Your task to perform on an android device: turn off picture-in-picture Image 0: 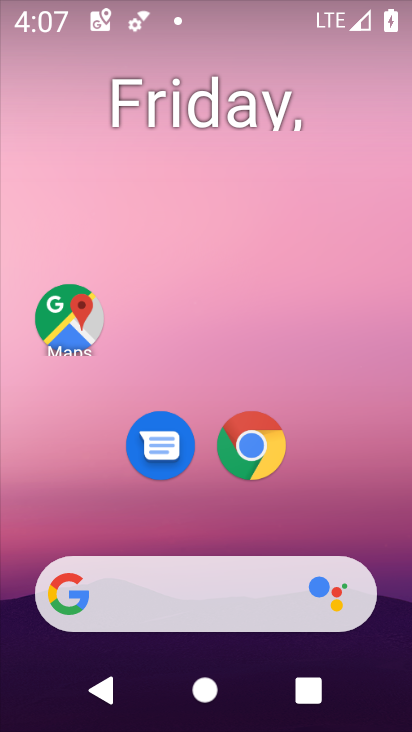
Step 0: click (272, 451)
Your task to perform on an android device: turn off picture-in-picture Image 1: 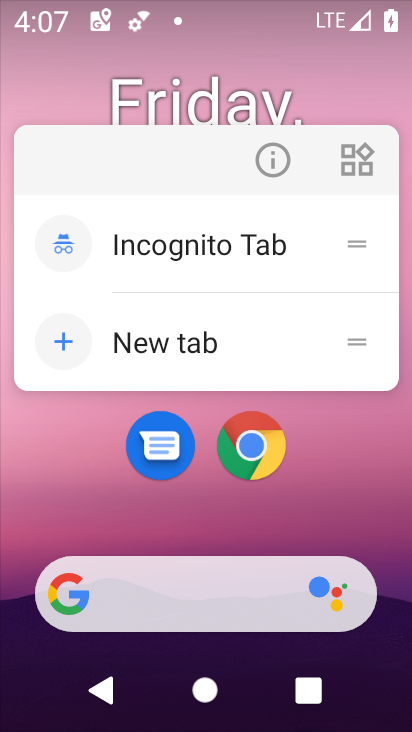
Step 1: click (270, 169)
Your task to perform on an android device: turn off picture-in-picture Image 2: 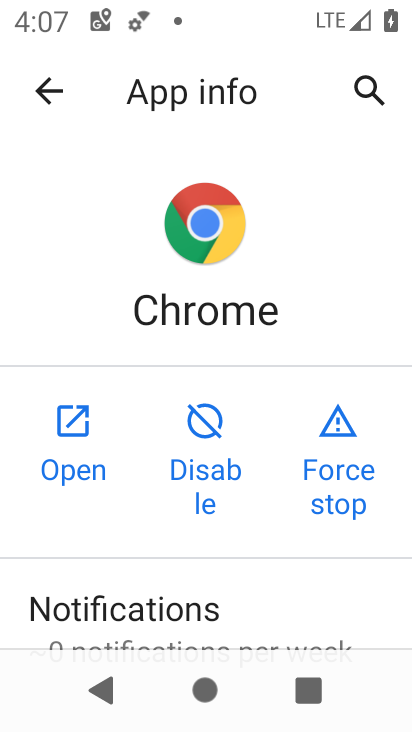
Step 2: drag from (273, 578) to (269, 279)
Your task to perform on an android device: turn off picture-in-picture Image 3: 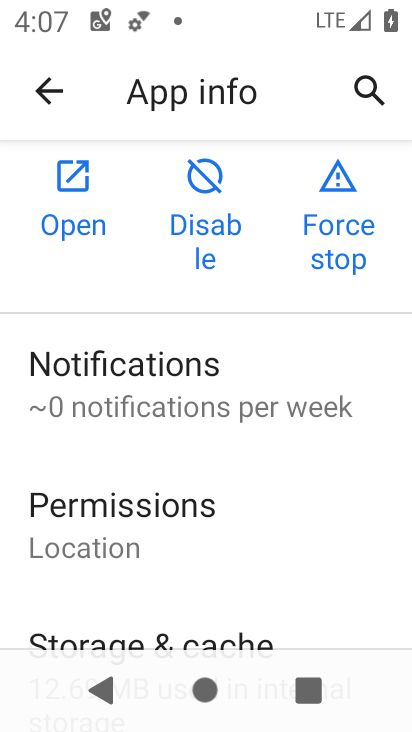
Step 3: drag from (282, 540) to (273, 202)
Your task to perform on an android device: turn off picture-in-picture Image 4: 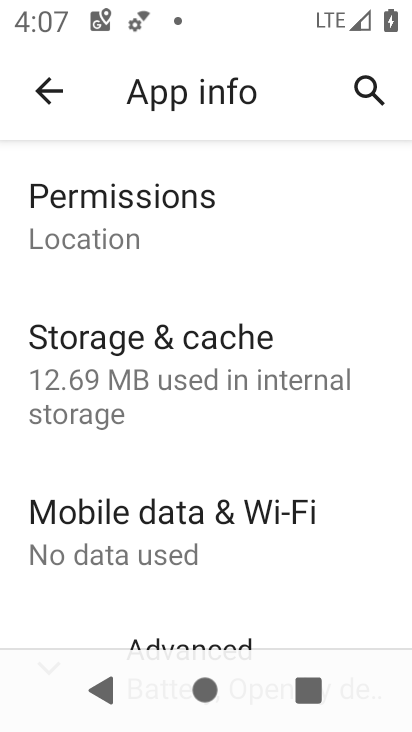
Step 4: drag from (282, 591) to (258, 139)
Your task to perform on an android device: turn off picture-in-picture Image 5: 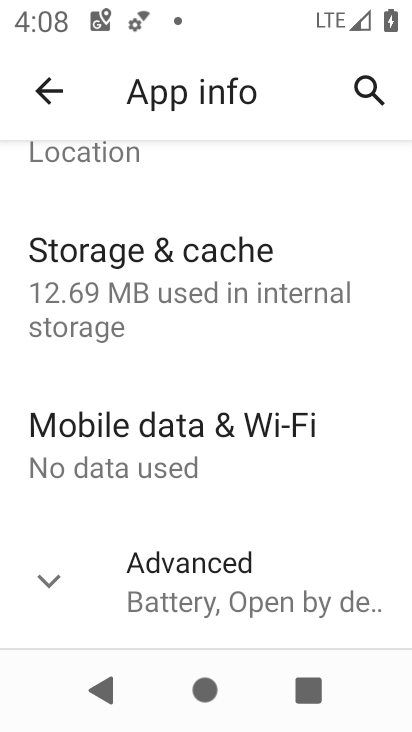
Step 5: click (261, 559)
Your task to perform on an android device: turn off picture-in-picture Image 6: 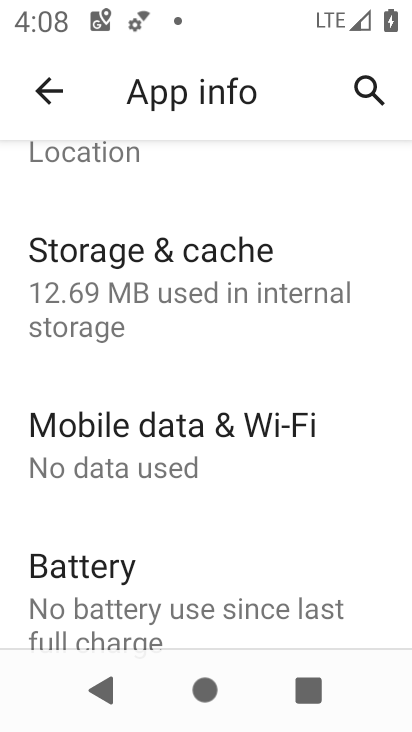
Step 6: drag from (284, 589) to (290, 141)
Your task to perform on an android device: turn off picture-in-picture Image 7: 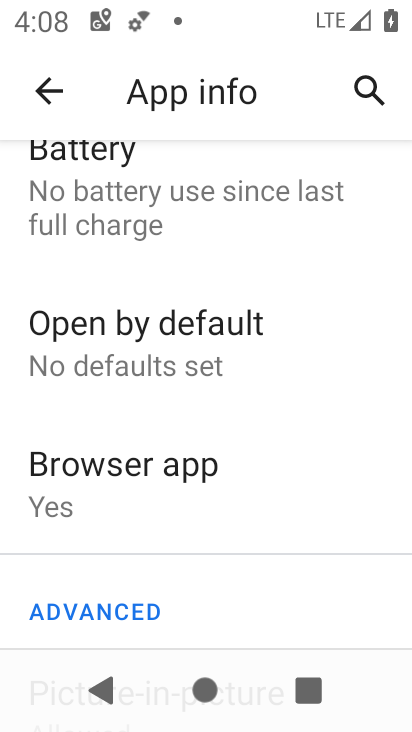
Step 7: drag from (241, 556) to (171, 222)
Your task to perform on an android device: turn off picture-in-picture Image 8: 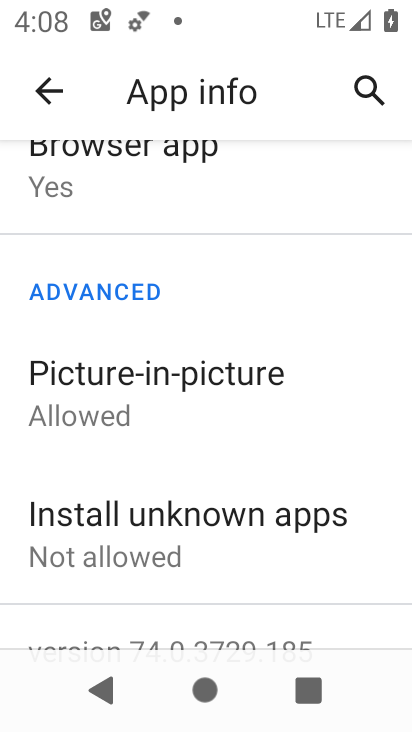
Step 8: click (176, 384)
Your task to perform on an android device: turn off picture-in-picture Image 9: 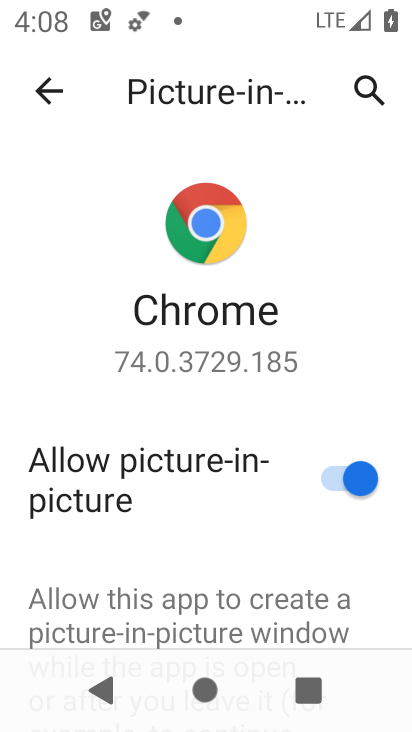
Step 9: click (330, 481)
Your task to perform on an android device: turn off picture-in-picture Image 10: 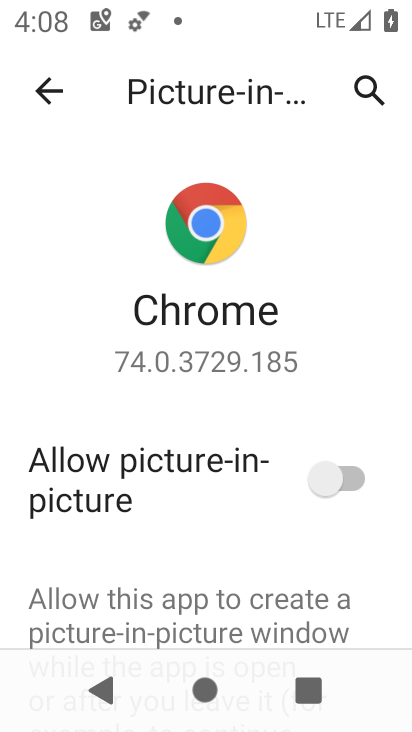
Step 10: task complete